Your task to perform on an android device: Is it going to rain today? Image 0: 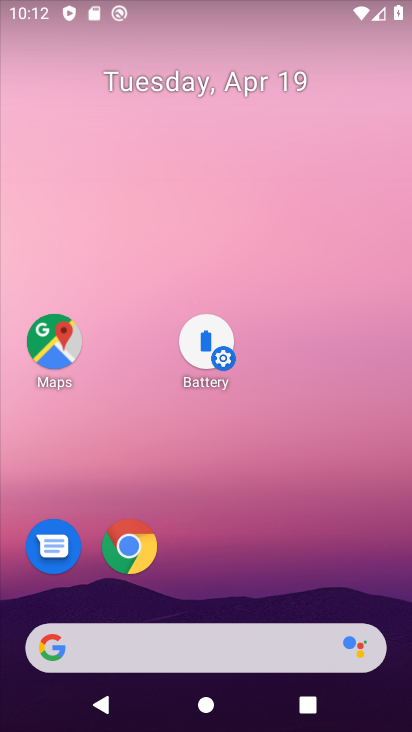
Step 0: drag from (235, 239) to (247, 84)
Your task to perform on an android device: Is it going to rain today? Image 1: 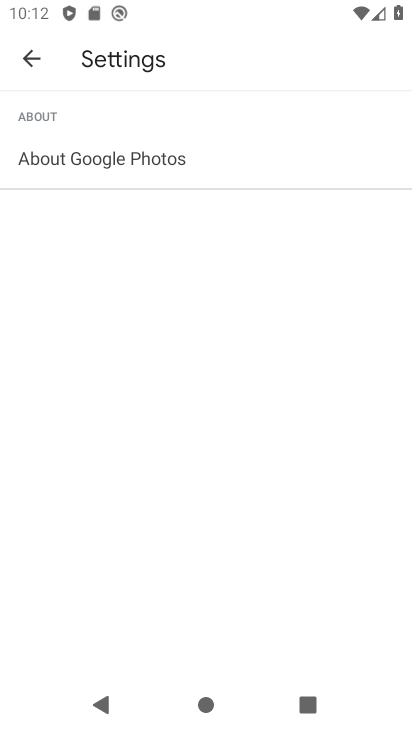
Step 1: press back button
Your task to perform on an android device: Is it going to rain today? Image 2: 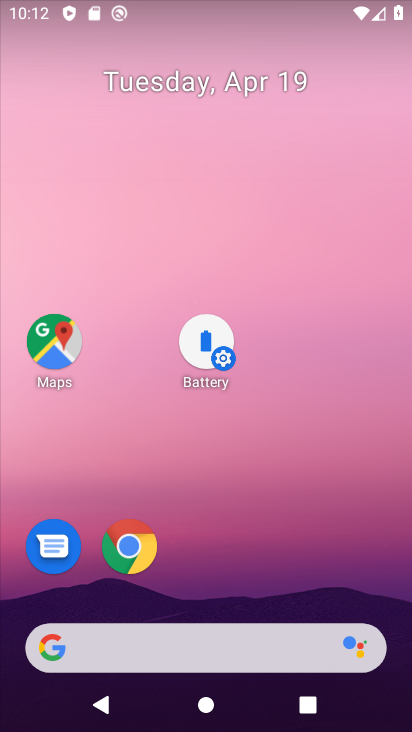
Step 2: click (225, 656)
Your task to perform on an android device: Is it going to rain today? Image 3: 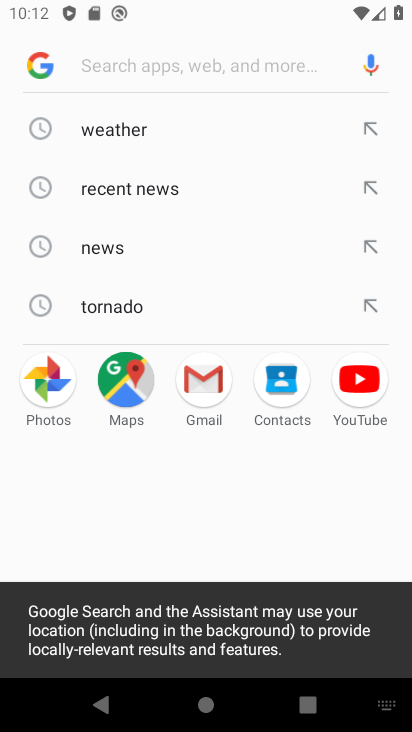
Step 3: click (127, 129)
Your task to perform on an android device: Is it going to rain today? Image 4: 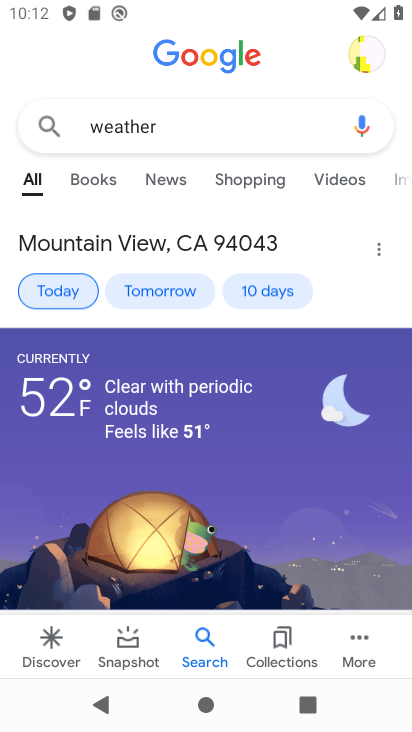
Step 4: task complete